Your task to perform on an android device: Is it going to rain tomorrow? Image 0: 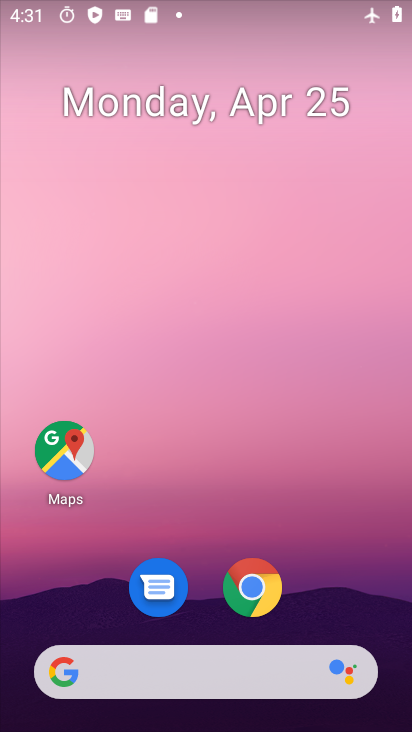
Step 0: drag from (319, 476) to (294, 134)
Your task to perform on an android device: Is it going to rain tomorrow? Image 1: 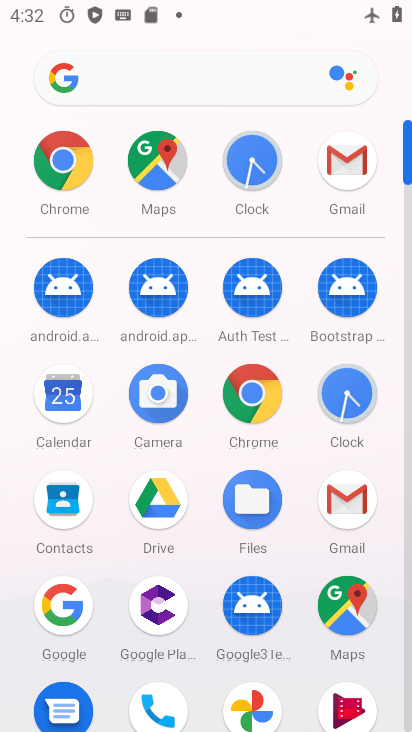
Step 1: click (251, 379)
Your task to perform on an android device: Is it going to rain tomorrow? Image 2: 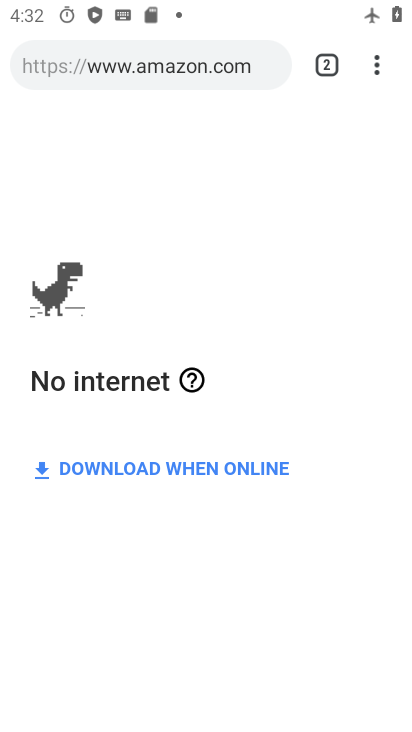
Step 2: click (200, 80)
Your task to perform on an android device: Is it going to rain tomorrow? Image 3: 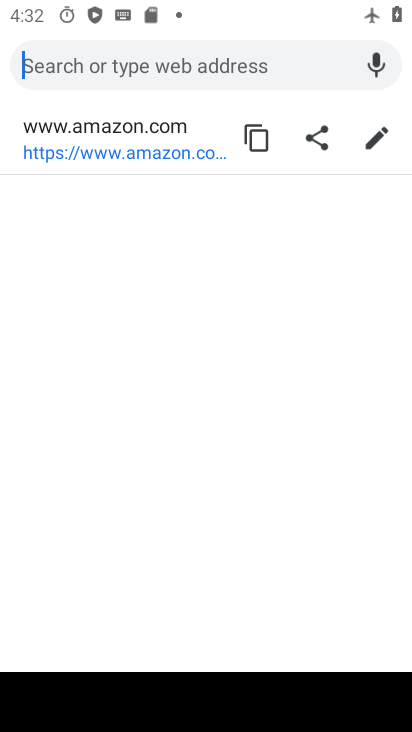
Step 3: type "weather"
Your task to perform on an android device: Is it going to rain tomorrow? Image 4: 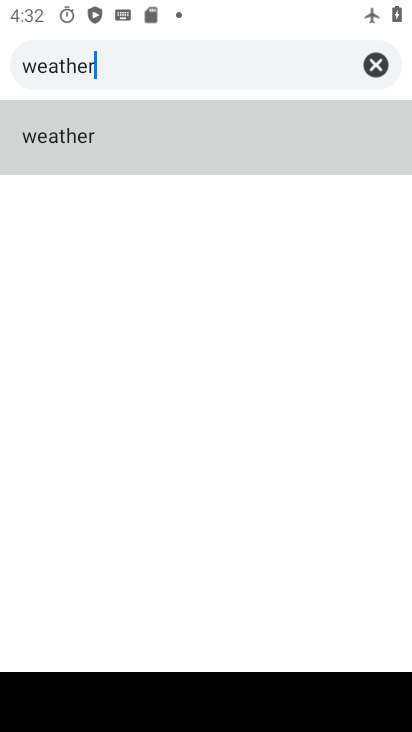
Step 4: click (58, 147)
Your task to perform on an android device: Is it going to rain tomorrow? Image 5: 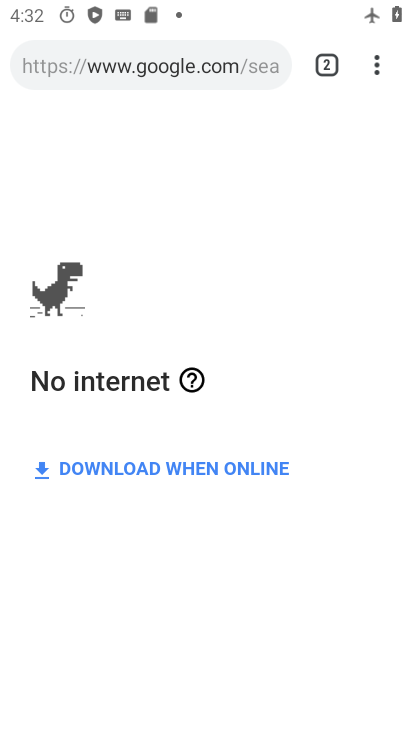
Step 5: task complete